Your task to perform on an android device: Go to Google maps Image 0: 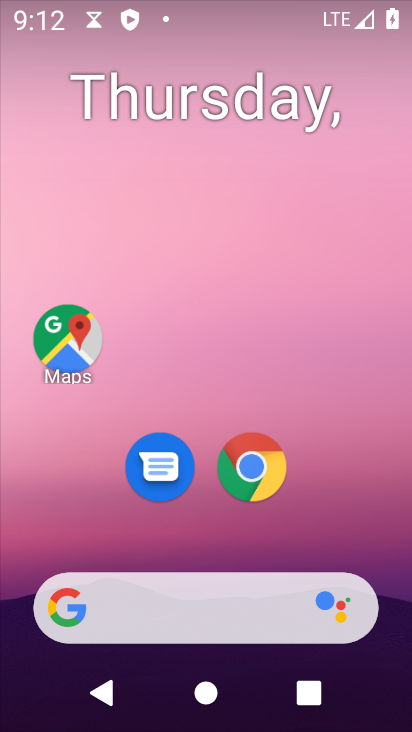
Step 0: click (69, 335)
Your task to perform on an android device: Go to Google maps Image 1: 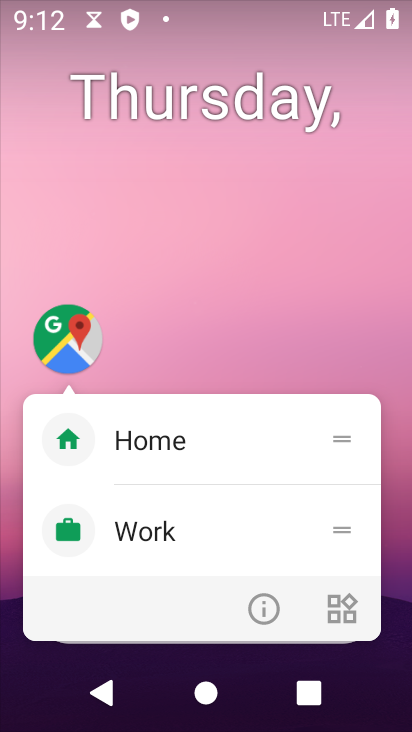
Step 1: click (69, 335)
Your task to perform on an android device: Go to Google maps Image 2: 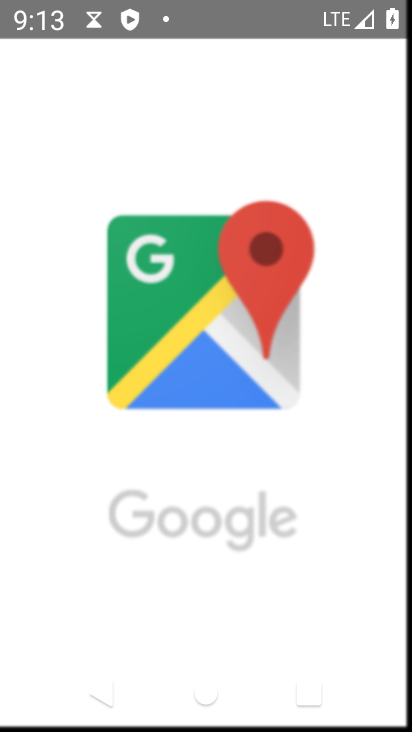
Step 2: press home button
Your task to perform on an android device: Go to Google maps Image 3: 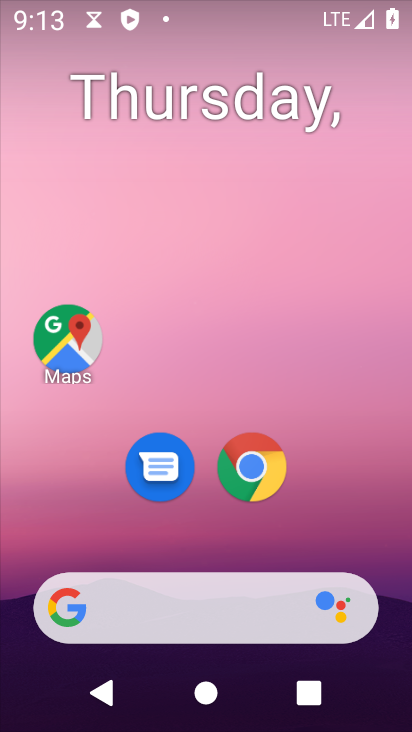
Step 3: click (73, 340)
Your task to perform on an android device: Go to Google maps Image 4: 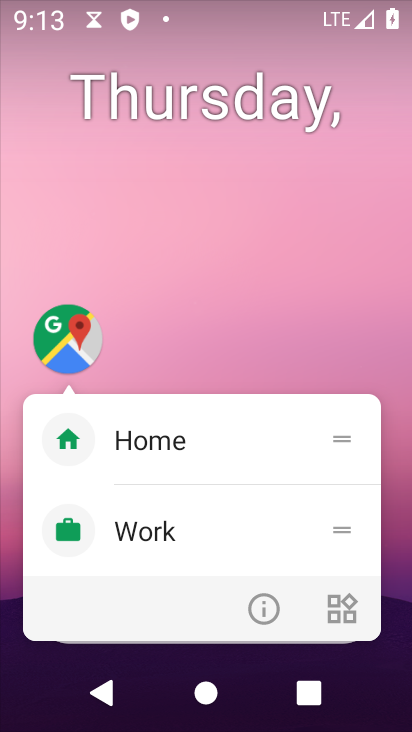
Step 4: click (74, 339)
Your task to perform on an android device: Go to Google maps Image 5: 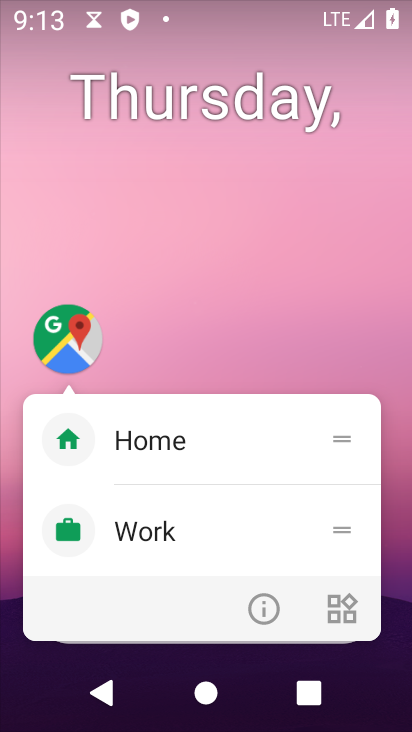
Step 5: click (75, 339)
Your task to perform on an android device: Go to Google maps Image 6: 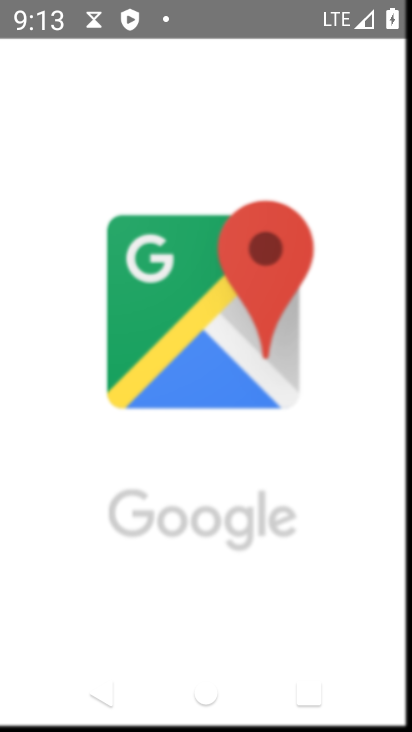
Step 6: task complete